Your task to perform on an android device: Open Google Image 0: 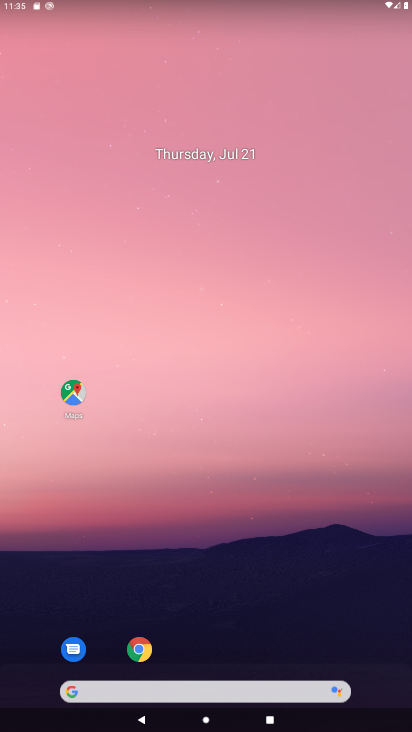
Step 0: click (176, 33)
Your task to perform on an android device: Open Google Image 1: 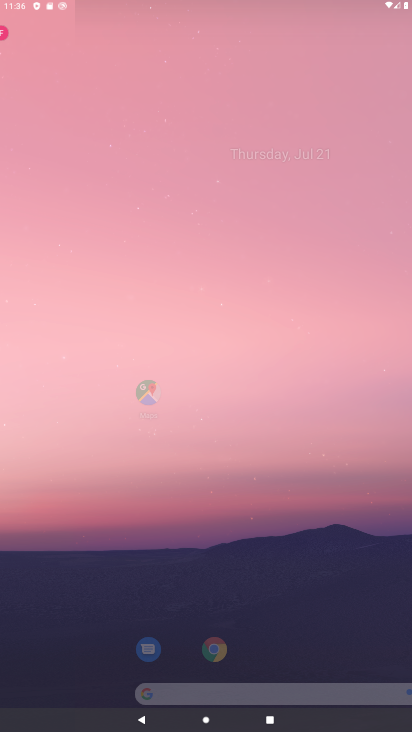
Step 1: click (201, 334)
Your task to perform on an android device: Open Google Image 2: 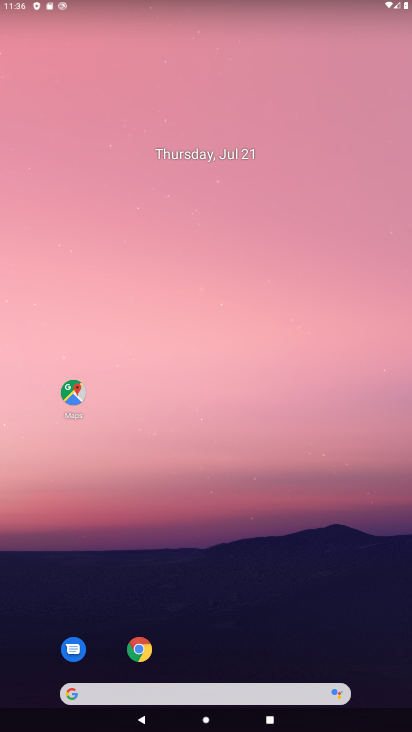
Step 2: click (216, 391)
Your task to perform on an android device: Open Google Image 3: 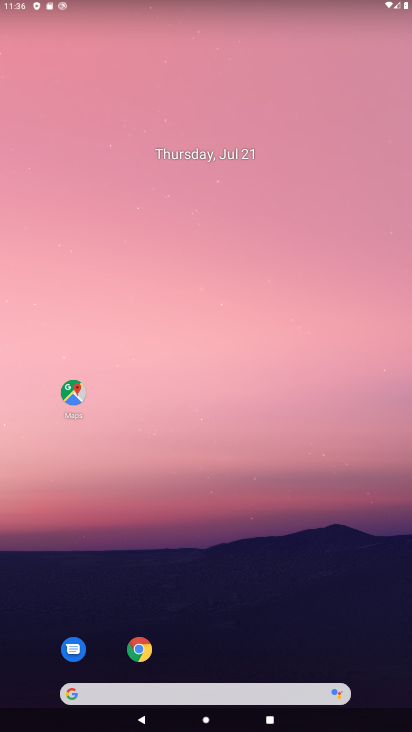
Step 3: drag from (283, 457) to (220, 18)
Your task to perform on an android device: Open Google Image 4: 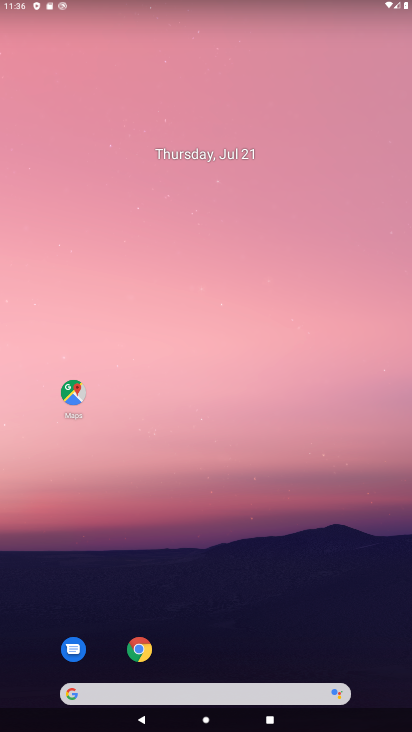
Step 4: drag from (208, 152) to (262, 267)
Your task to perform on an android device: Open Google Image 5: 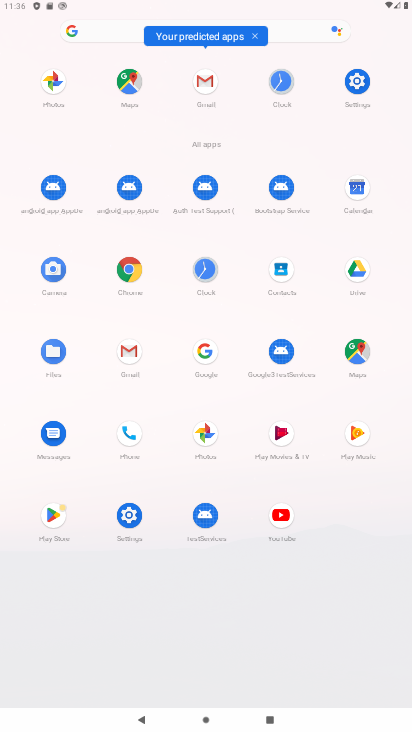
Step 5: drag from (11, 710) to (237, 227)
Your task to perform on an android device: Open Google Image 6: 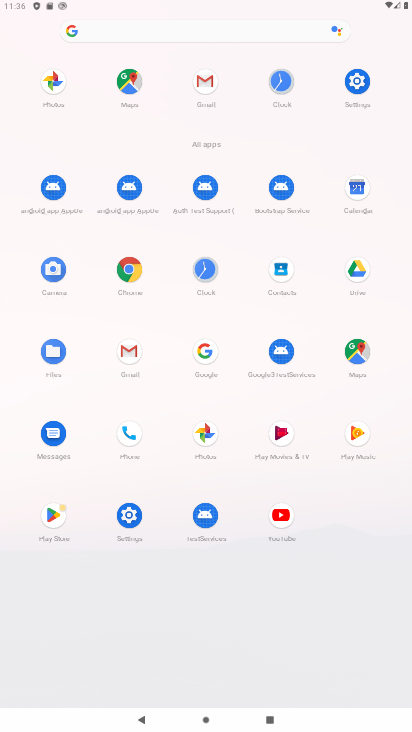
Step 6: click (215, 222)
Your task to perform on an android device: Open Google Image 7: 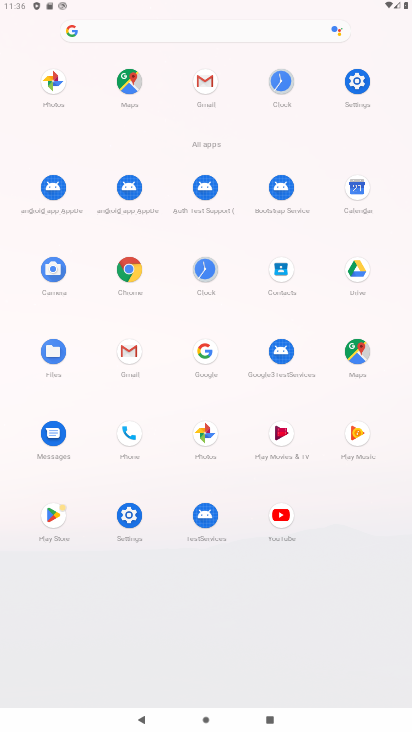
Step 7: drag from (199, 143) to (208, 38)
Your task to perform on an android device: Open Google Image 8: 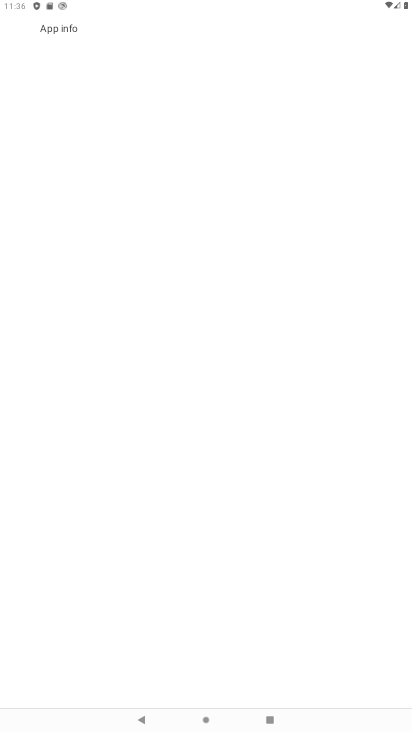
Step 8: click (144, 148)
Your task to perform on an android device: Open Google Image 9: 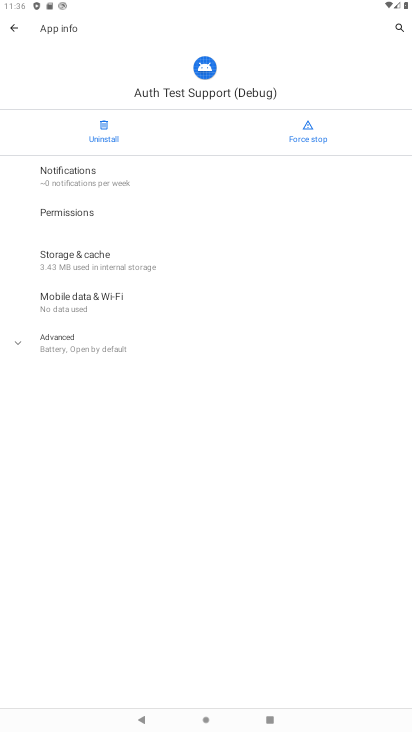
Step 9: task complete